Your task to perform on an android device: open chrome and create a bookmark for the current page Image 0: 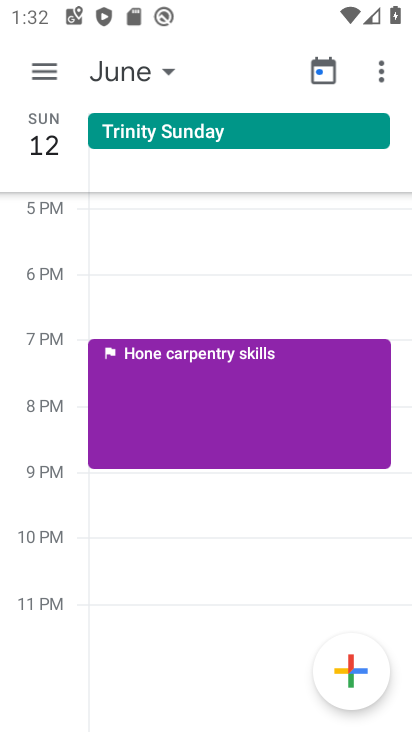
Step 0: press home button
Your task to perform on an android device: open chrome and create a bookmark for the current page Image 1: 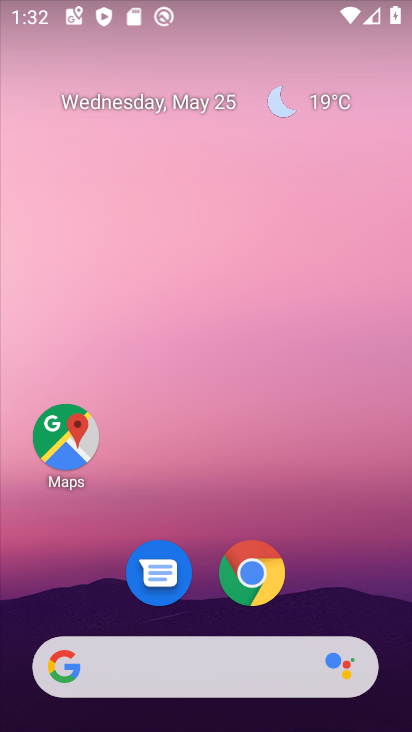
Step 1: click (354, 597)
Your task to perform on an android device: open chrome and create a bookmark for the current page Image 2: 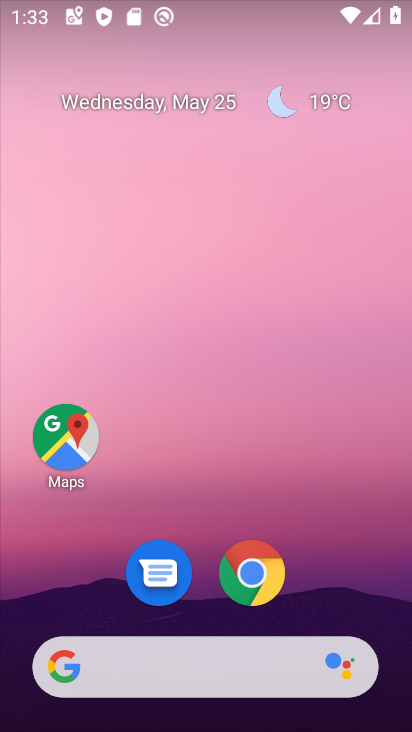
Step 2: click (248, 569)
Your task to perform on an android device: open chrome and create a bookmark for the current page Image 3: 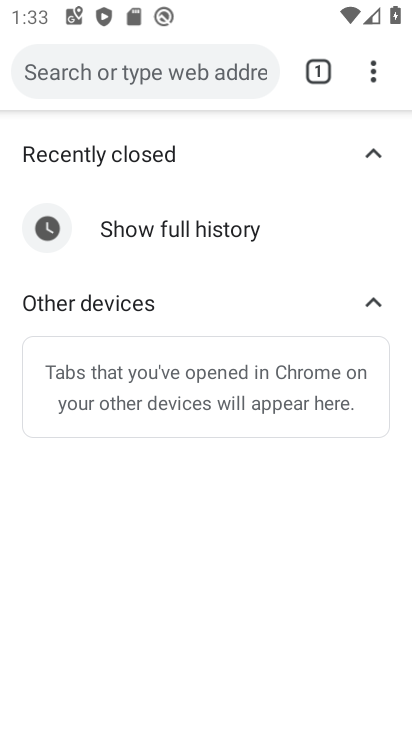
Step 3: click (371, 76)
Your task to perform on an android device: open chrome and create a bookmark for the current page Image 4: 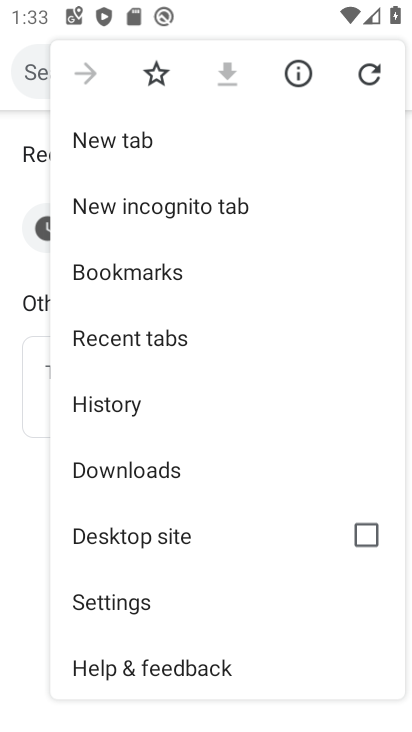
Step 4: click (158, 73)
Your task to perform on an android device: open chrome and create a bookmark for the current page Image 5: 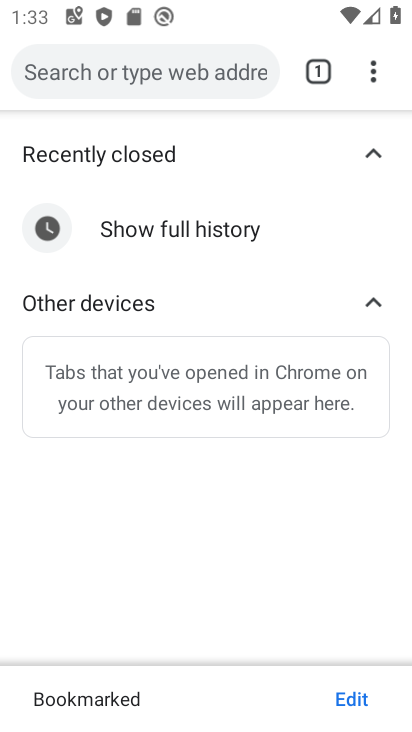
Step 5: task complete